Your task to perform on an android device: all mails in gmail Image 0: 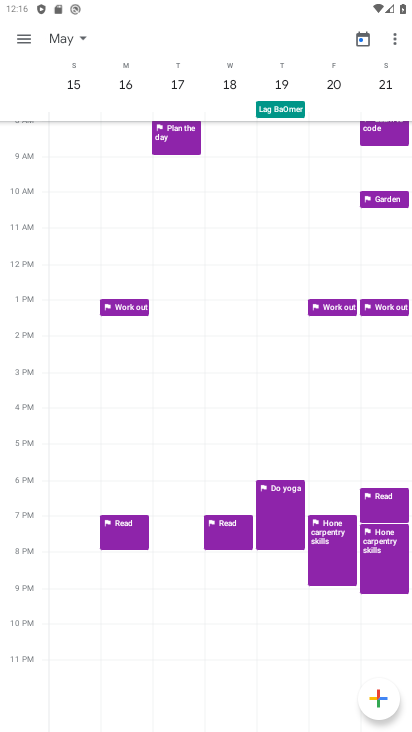
Step 0: press home button
Your task to perform on an android device: all mails in gmail Image 1: 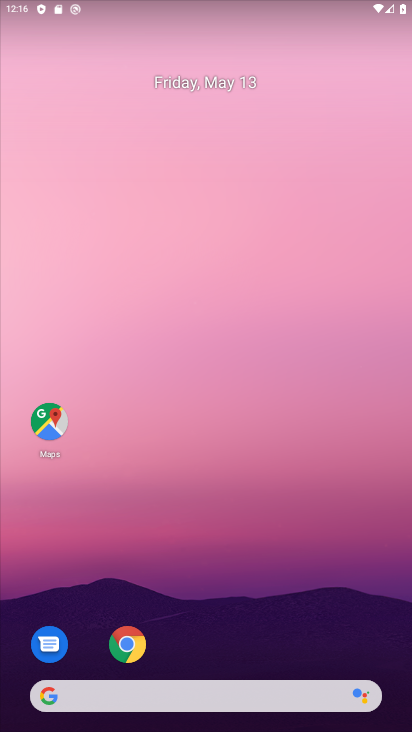
Step 1: drag from (222, 648) to (192, 133)
Your task to perform on an android device: all mails in gmail Image 2: 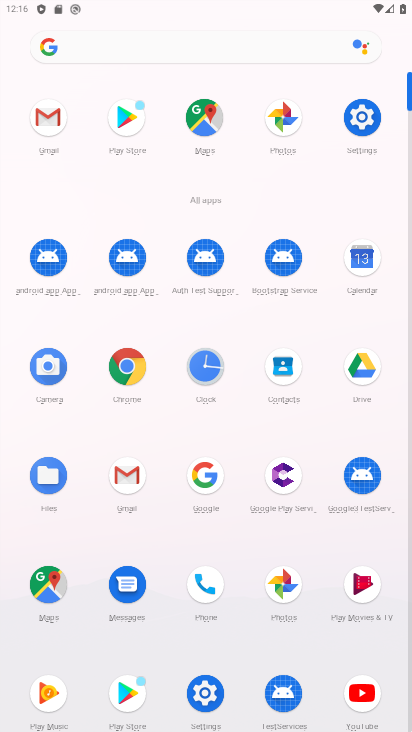
Step 2: click (126, 469)
Your task to perform on an android device: all mails in gmail Image 3: 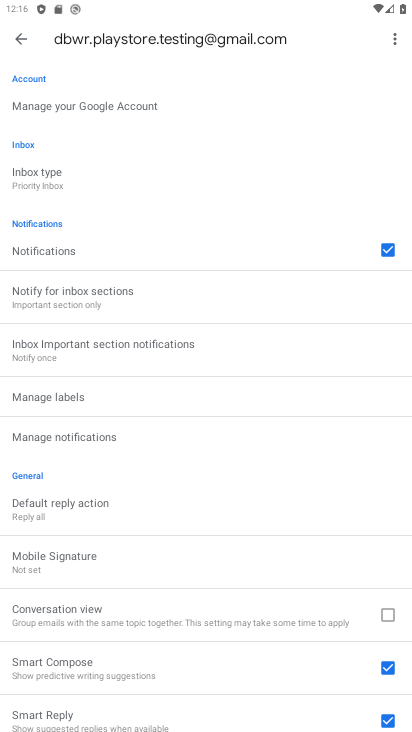
Step 3: click (18, 42)
Your task to perform on an android device: all mails in gmail Image 4: 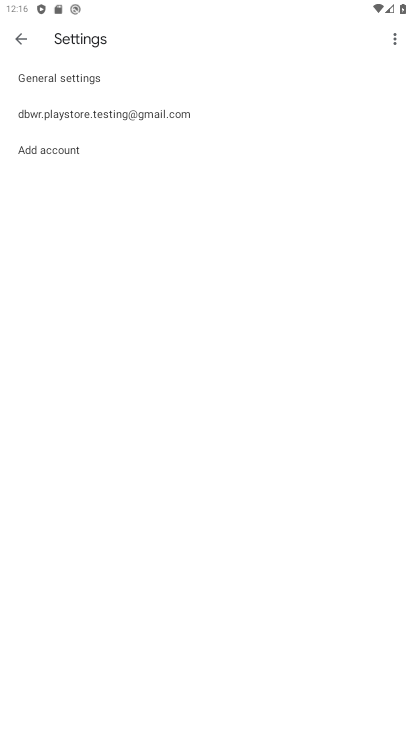
Step 4: click (24, 34)
Your task to perform on an android device: all mails in gmail Image 5: 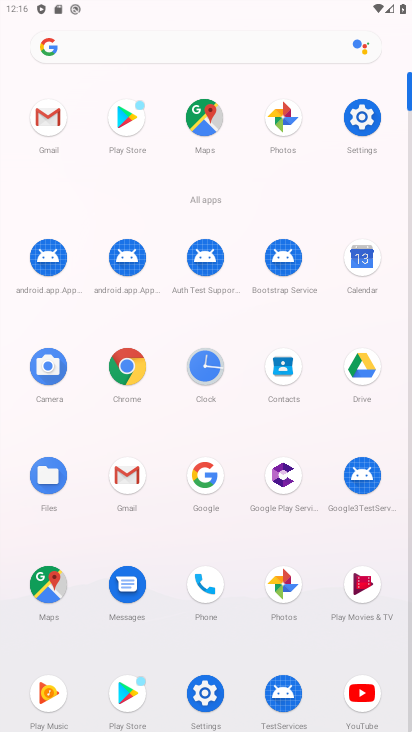
Step 5: click (52, 124)
Your task to perform on an android device: all mails in gmail Image 6: 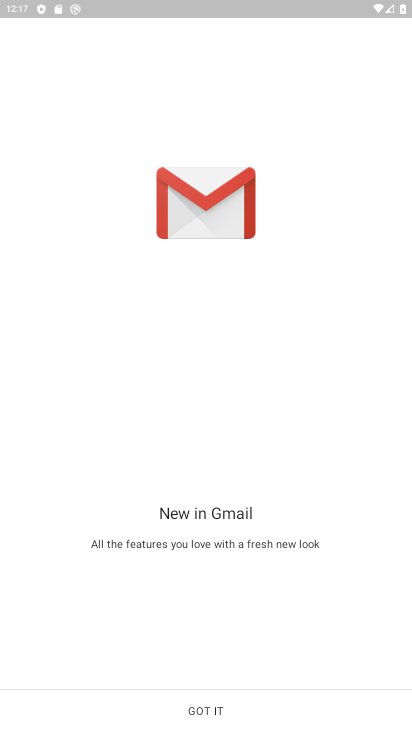
Step 6: click (249, 701)
Your task to perform on an android device: all mails in gmail Image 7: 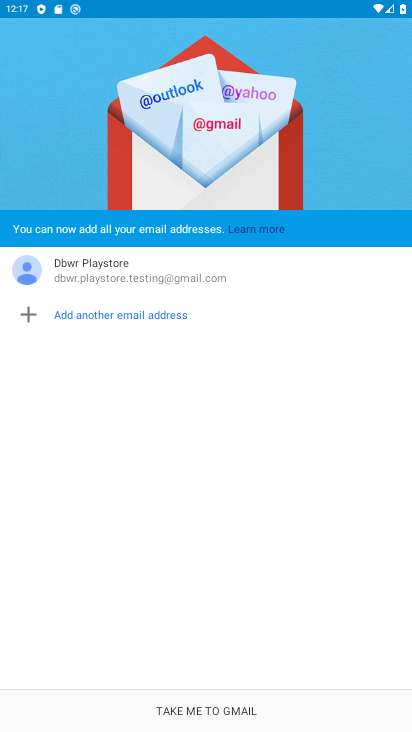
Step 7: click (237, 707)
Your task to perform on an android device: all mails in gmail Image 8: 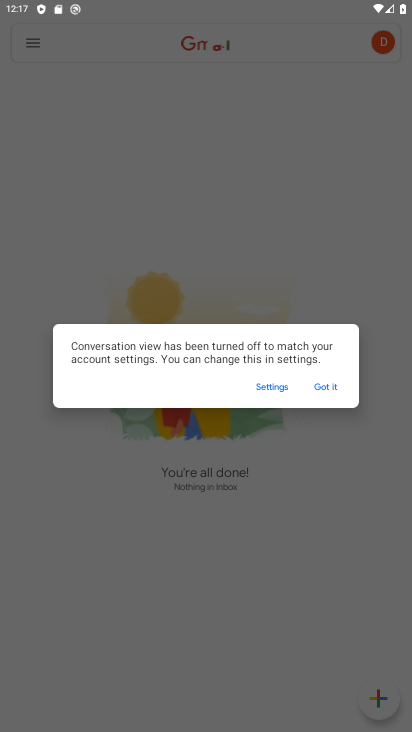
Step 8: click (324, 385)
Your task to perform on an android device: all mails in gmail Image 9: 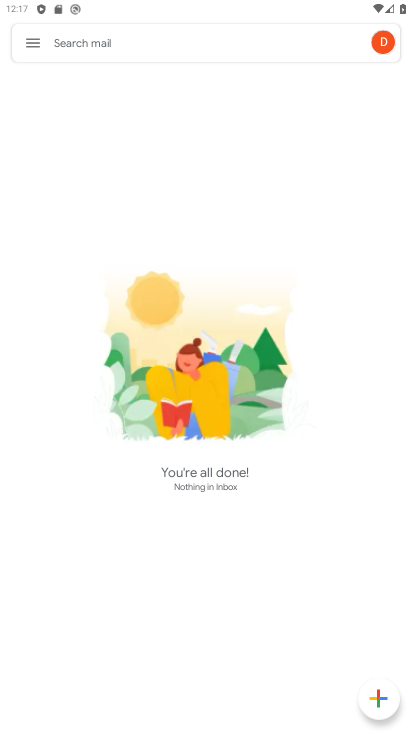
Step 9: click (30, 42)
Your task to perform on an android device: all mails in gmail Image 10: 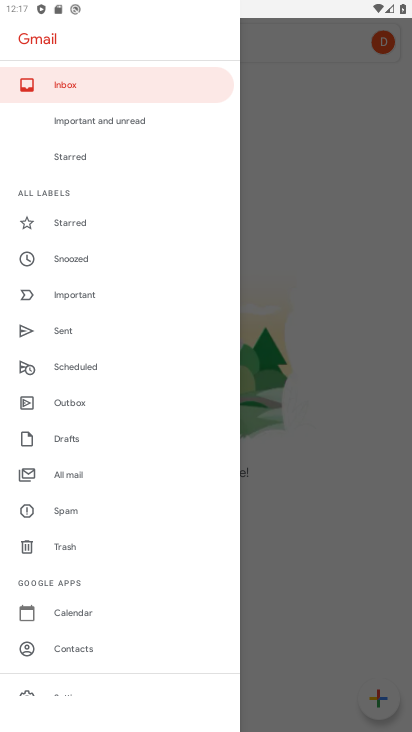
Step 10: click (76, 470)
Your task to perform on an android device: all mails in gmail Image 11: 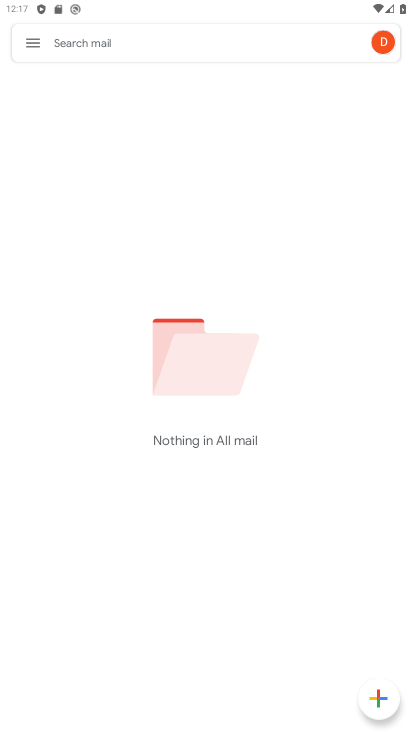
Step 11: task complete